Your task to perform on an android device: clear all cookies in the chrome app Image 0: 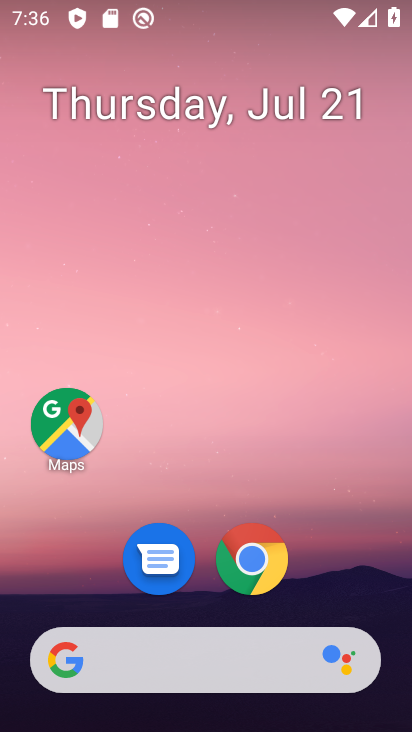
Step 0: drag from (229, 555) to (285, 186)
Your task to perform on an android device: clear all cookies in the chrome app Image 1: 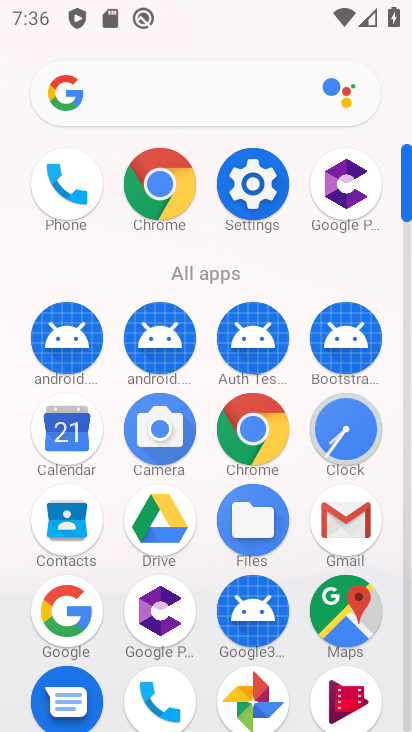
Step 1: click (269, 461)
Your task to perform on an android device: clear all cookies in the chrome app Image 2: 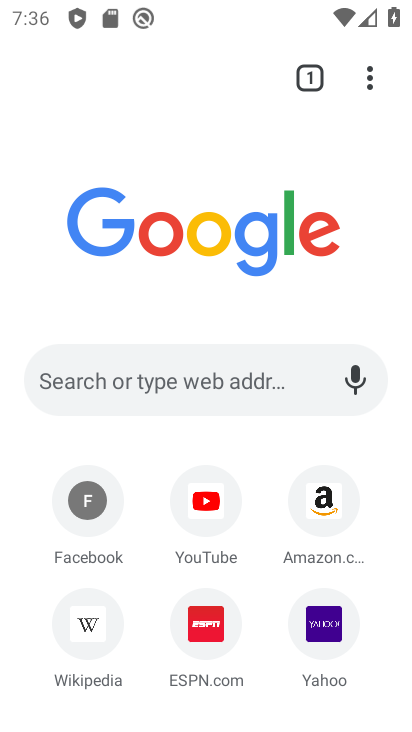
Step 2: click (370, 81)
Your task to perform on an android device: clear all cookies in the chrome app Image 3: 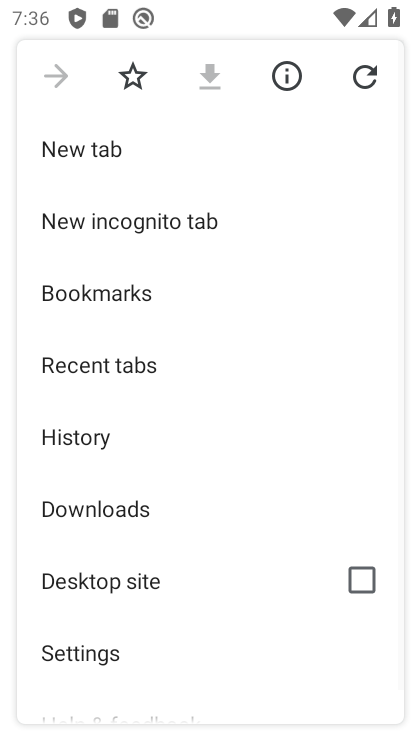
Step 3: drag from (184, 550) to (223, 211)
Your task to perform on an android device: clear all cookies in the chrome app Image 4: 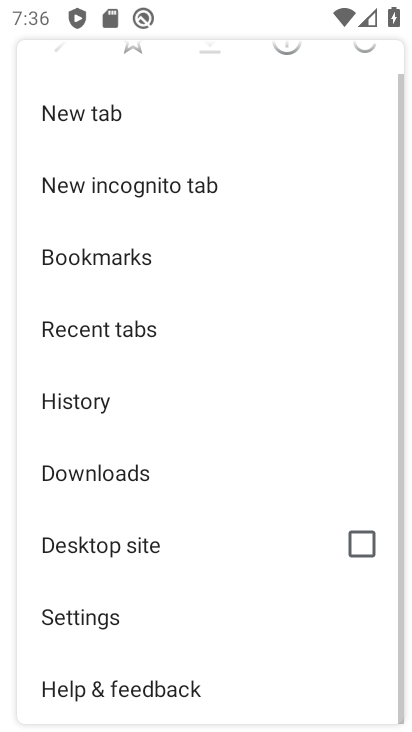
Step 4: click (96, 621)
Your task to perform on an android device: clear all cookies in the chrome app Image 5: 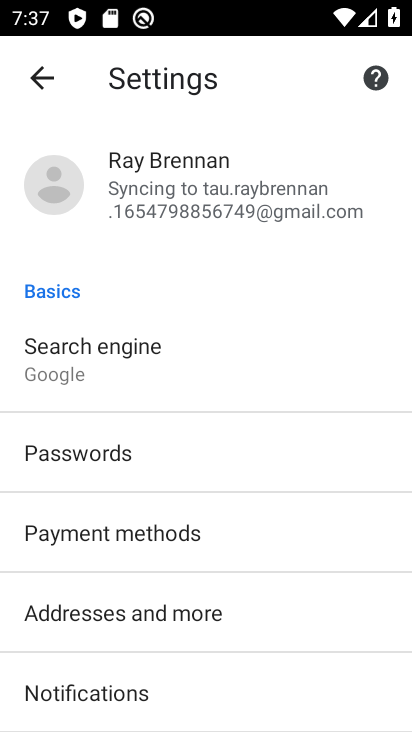
Step 5: click (41, 82)
Your task to perform on an android device: clear all cookies in the chrome app Image 6: 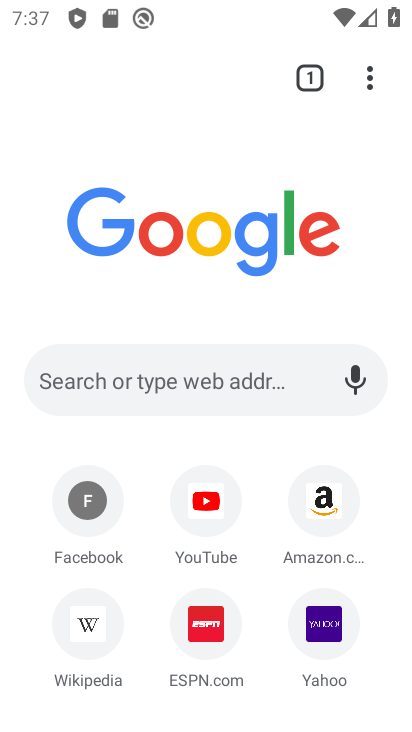
Step 6: click (382, 94)
Your task to perform on an android device: clear all cookies in the chrome app Image 7: 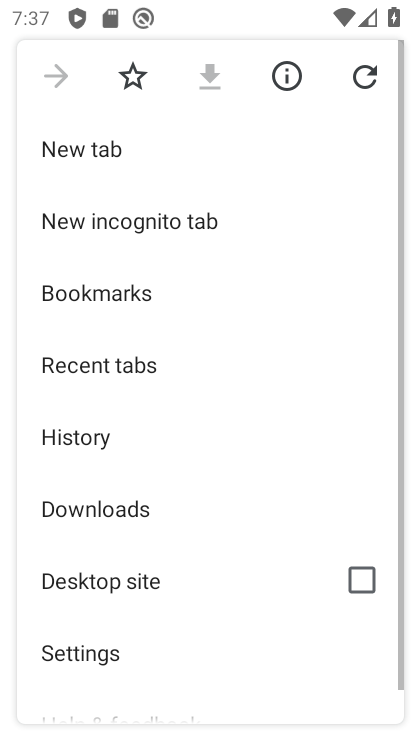
Step 7: click (374, 82)
Your task to perform on an android device: clear all cookies in the chrome app Image 8: 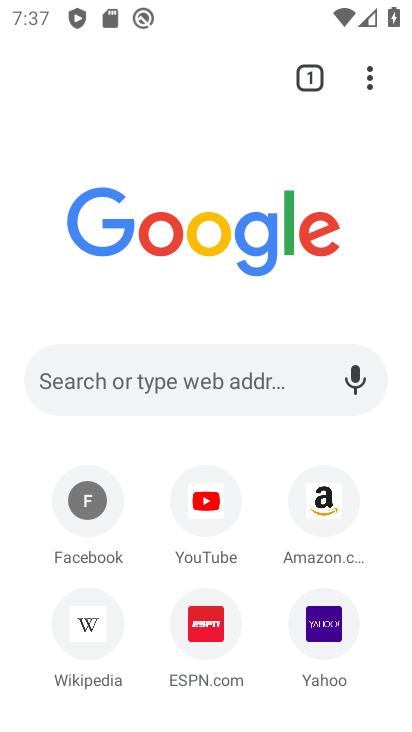
Step 8: click (374, 82)
Your task to perform on an android device: clear all cookies in the chrome app Image 9: 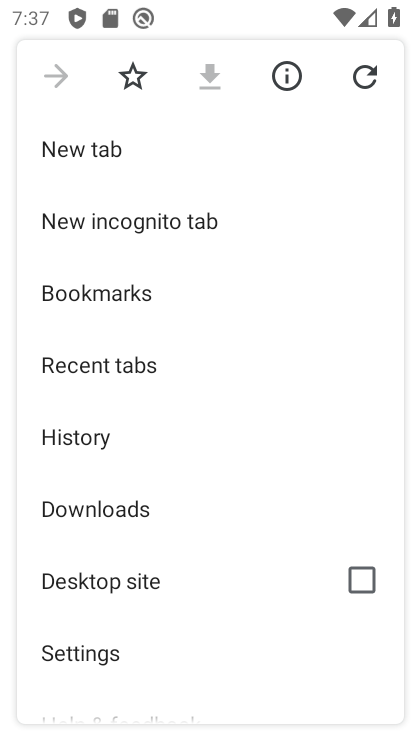
Step 9: click (63, 435)
Your task to perform on an android device: clear all cookies in the chrome app Image 10: 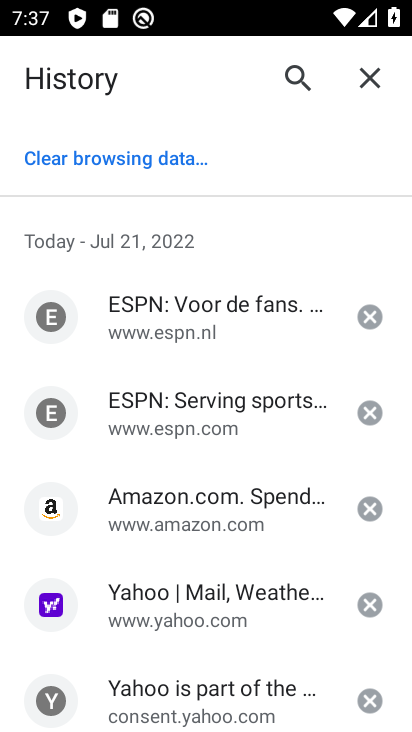
Step 10: click (89, 160)
Your task to perform on an android device: clear all cookies in the chrome app Image 11: 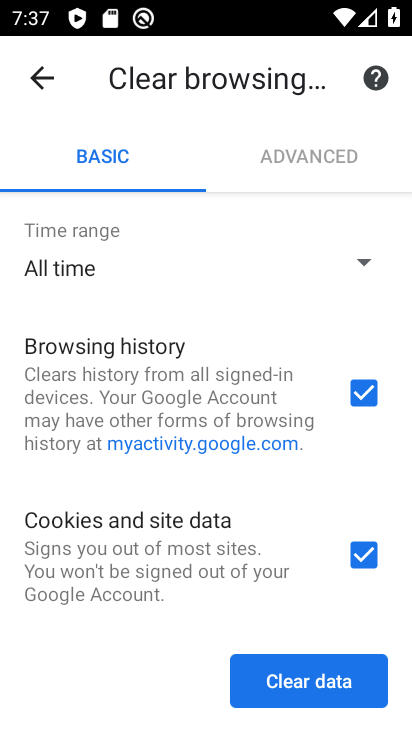
Step 11: click (370, 398)
Your task to perform on an android device: clear all cookies in the chrome app Image 12: 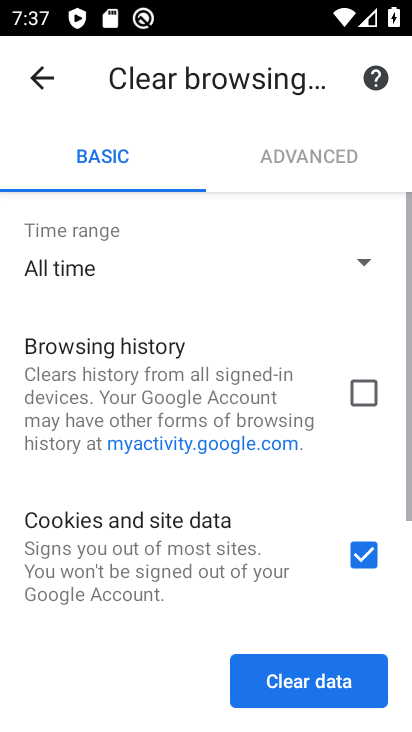
Step 12: click (325, 687)
Your task to perform on an android device: clear all cookies in the chrome app Image 13: 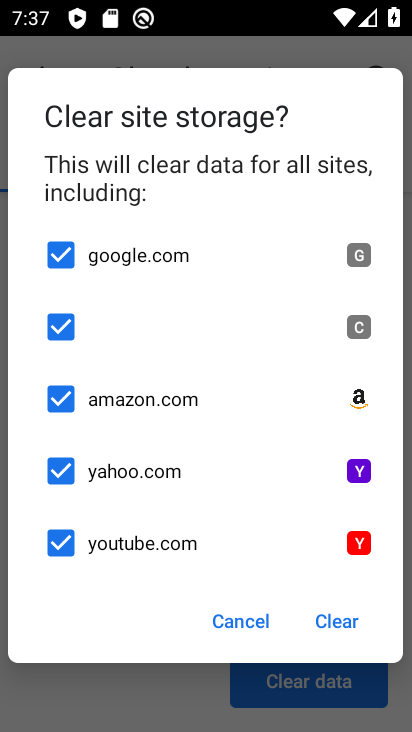
Step 13: click (339, 626)
Your task to perform on an android device: clear all cookies in the chrome app Image 14: 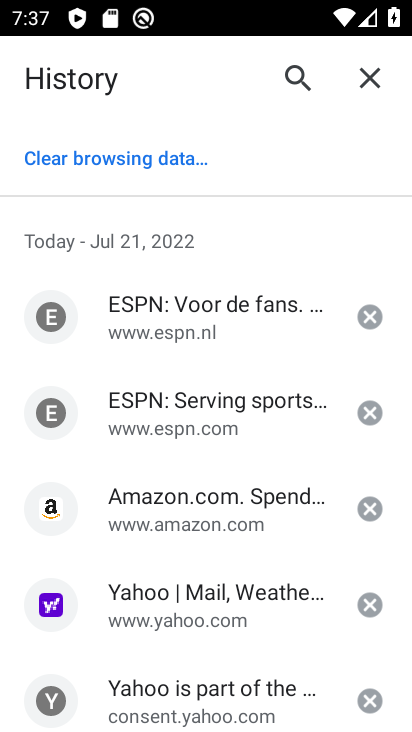
Step 14: task complete